Your task to perform on an android device: turn off data saver in the chrome app Image 0: 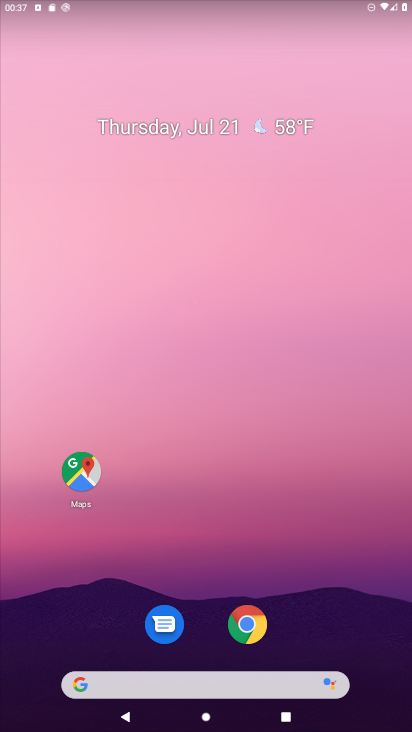
Step 0: click (243, 617)
Your task to perform on an android device: turn off data saver in the chrome app Image 1: 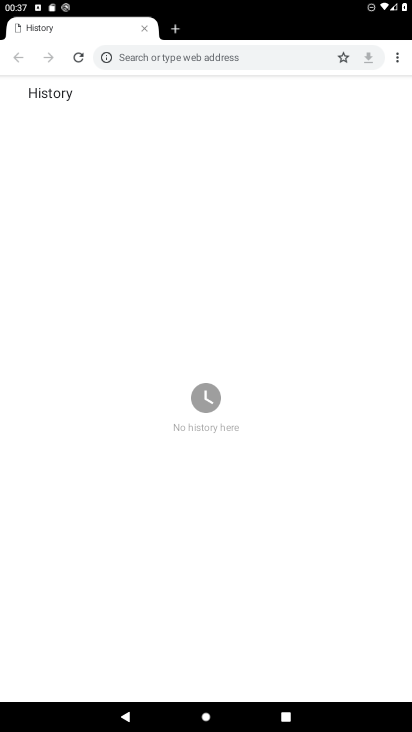
Step 1: click (394, 62)
Your task to perform on an android device: turn off data saver in the chrome app Image 2: 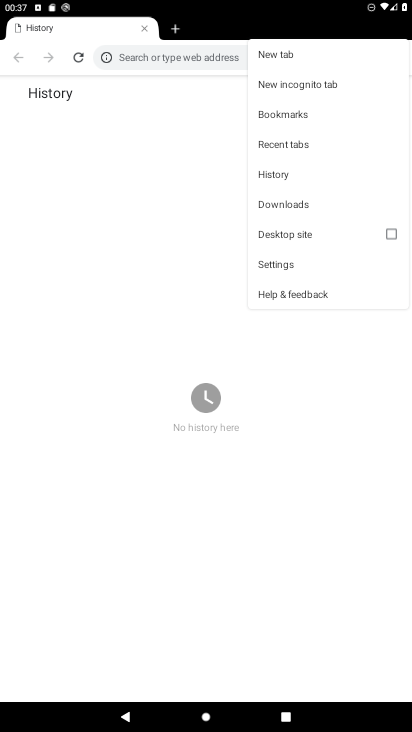
Step 2: click (301, 266)
Your task to perform on an android device: turn off data saver in the chrome app Image 3: 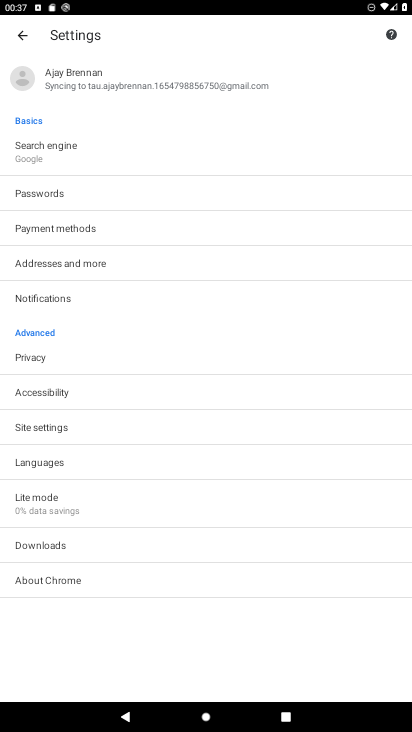
Step 3: click (62, 494)
Your task to perform on an android device: turn off data saver in the chrome app Image 4: 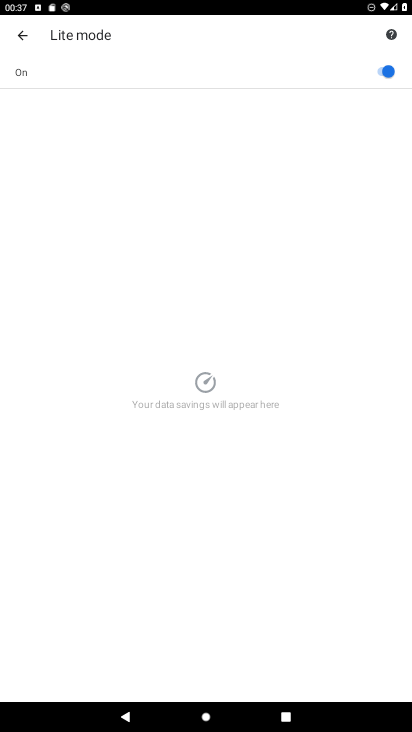
Step 4: click (382, 74)
Your task to perform on an android device: turn off data saver in the chrome app Image 5: 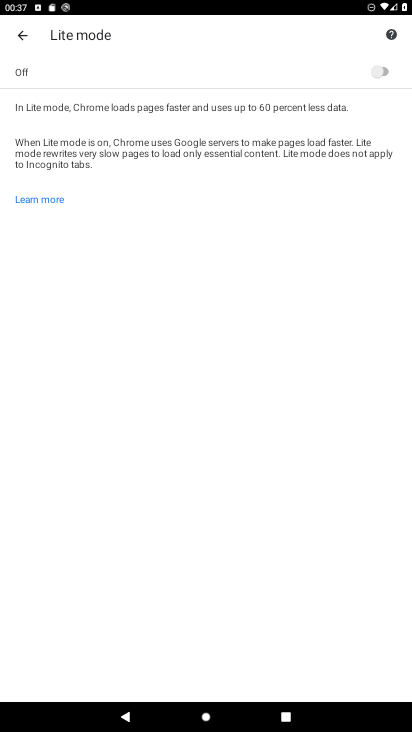
Step 5: task complete